Your task to perform on an android device: What's the weather going to be tomorrow? Image 0: 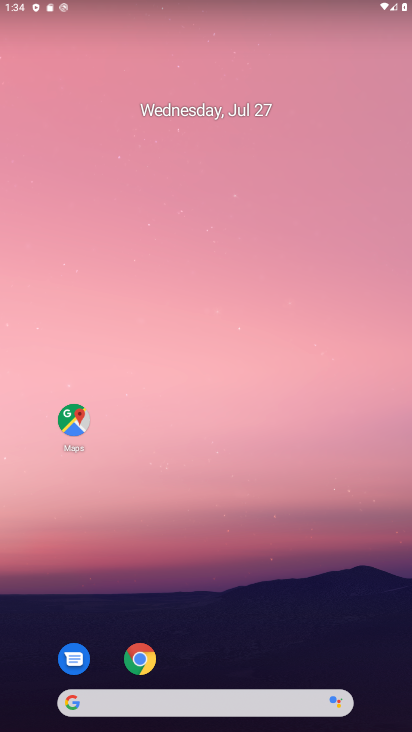
Step 0: click (153, 699)
Your task to perform on an android device: What's the weather going to be tomorrow? Image 1: 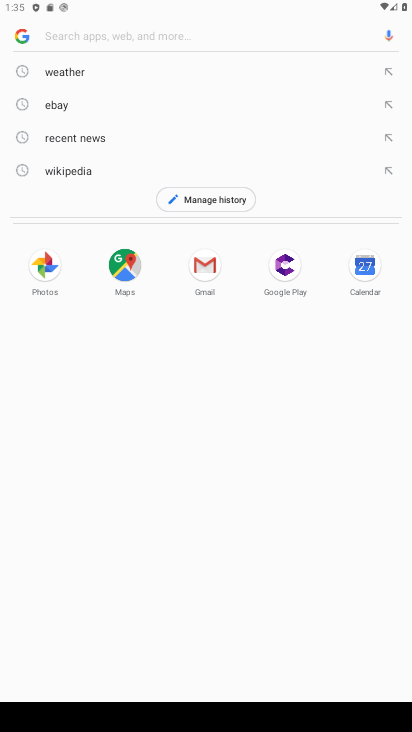
Step 1: type "What's the weather going to be tomorrow?"
Your task to perform on an android device: What's the weather going to be tomorrow? Image 2: 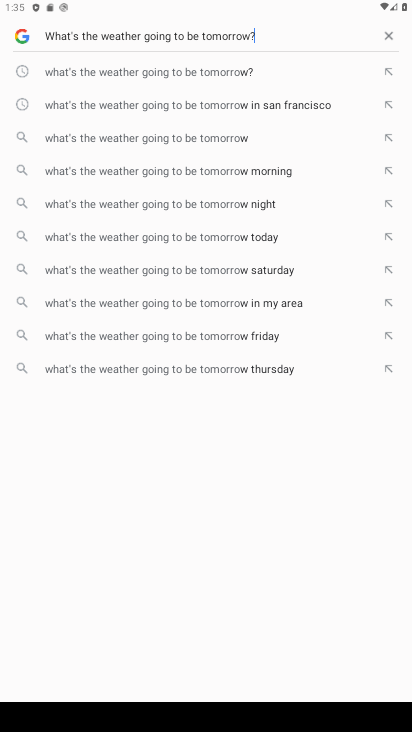
Step 2: press enter
Your task to perform on an android device: What's the weather going to be tomorrow? Image 3: 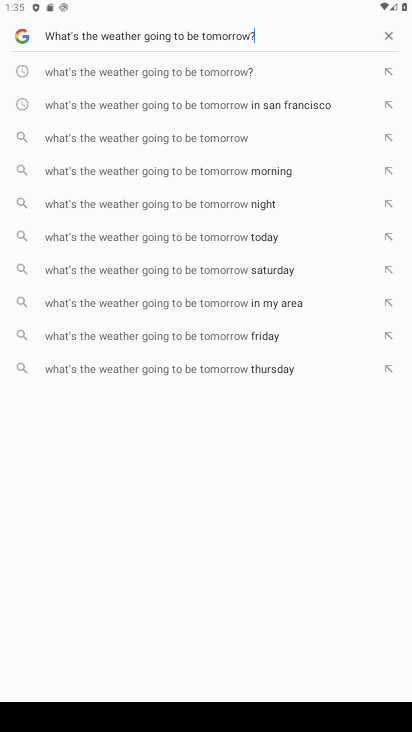
Step 3: type ""
Your task to perform on an android device: What's the weather going to be tomorrow? Image 4: 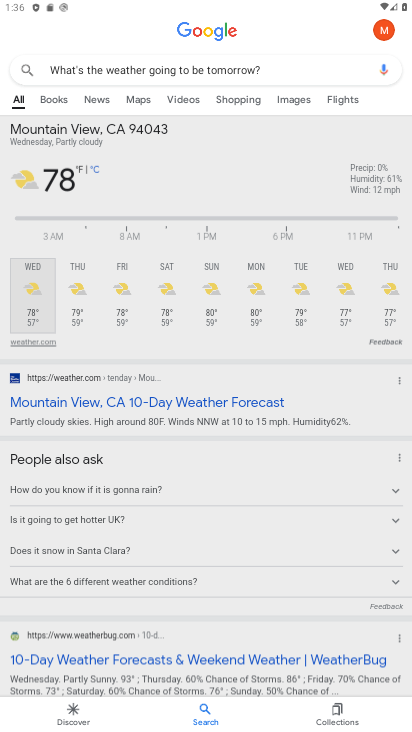
Step 4: task complete